Your task to perform on an android device: delete the emails in spam in the gmail app Image 0: 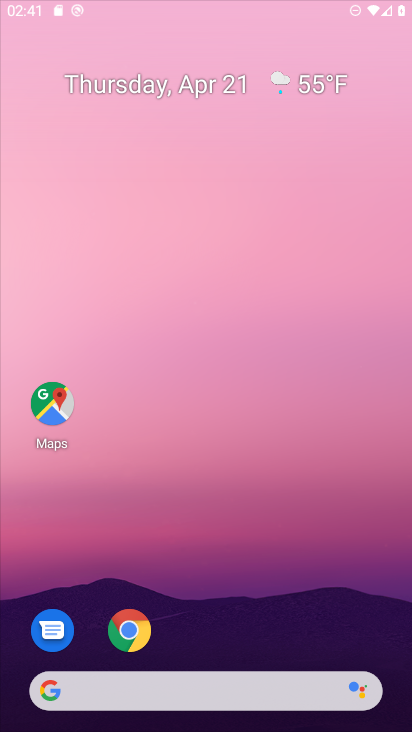
Step 0: click (35, 416)
Your task to perform on an android device: delete the emails in spam in the gmail app Image 1: 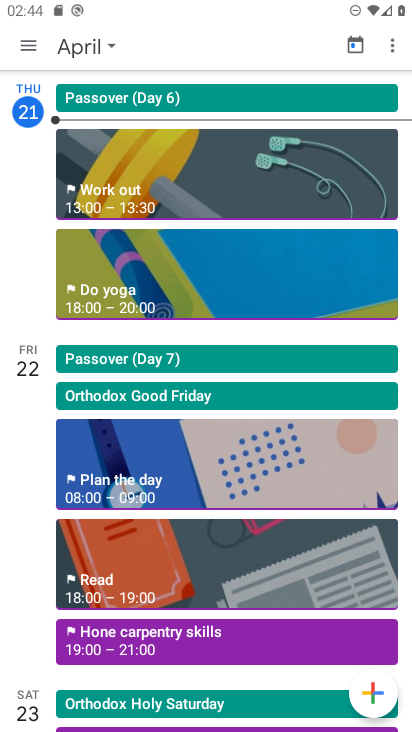
Step 1: press home button
Your task to perform on an android device: delete the emails in spam in the gmail app Image 2: 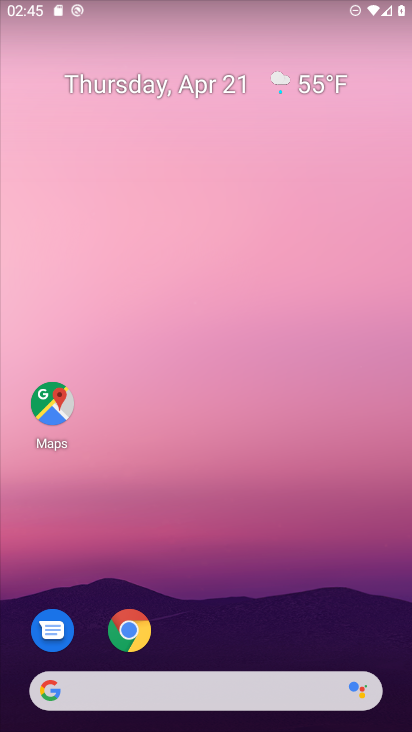
Step 2: drag from (236, 621) to (179, 247)
Your task to perform on an android device: delete the emails in spam in the gmail app Image 3: 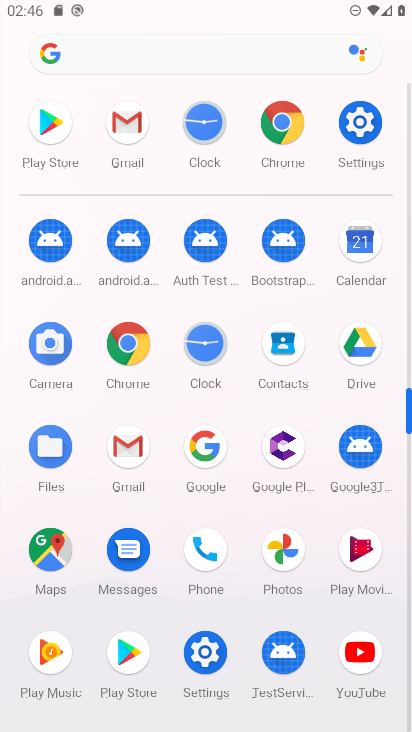
Step 3: click (114, 146)
Your task to perform on an android device: delete the emails in spam in the gmail app Image 4: 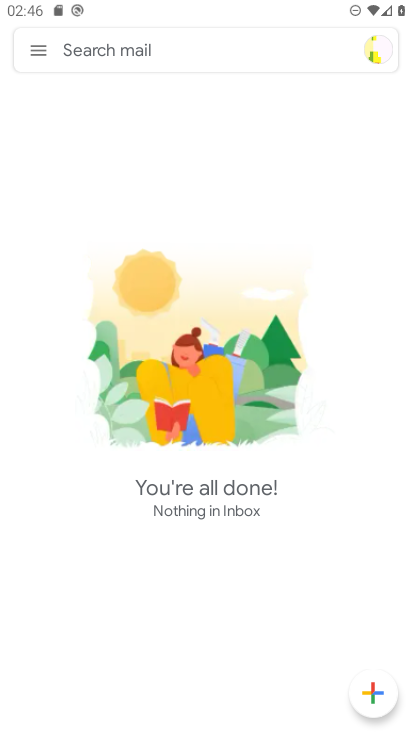
Step 4: task complete